Your task to perform on an android device: Open calendar and show me the fourth week of next month Image 0: 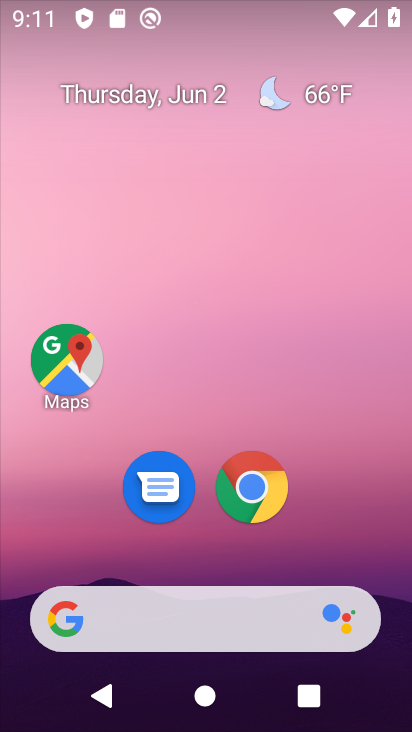
Step 0: drag from (235, 723) to (220, 117)
Your task to perform on an android device: Open calendar and show me the fourth week of next month Image 1: 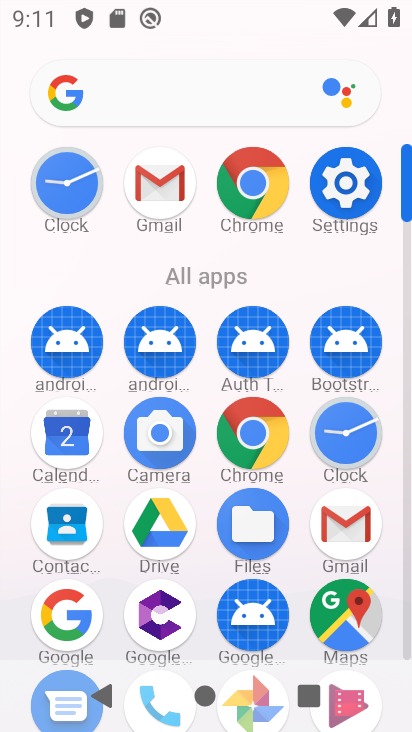
Step 1: click (64, 442)
Your task to perform on an android device: Open calendar and show me the fourth week of next month Image 2: 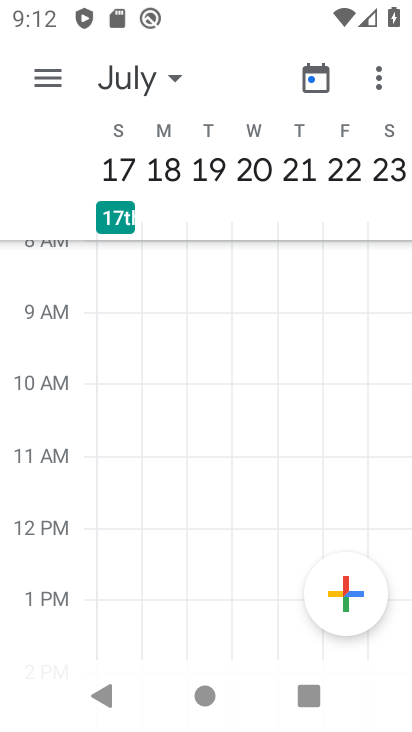
Step 2: click (174, 75)
Your task to perform on an android device: Open calendar and show me the fourth week of next month Image 3: 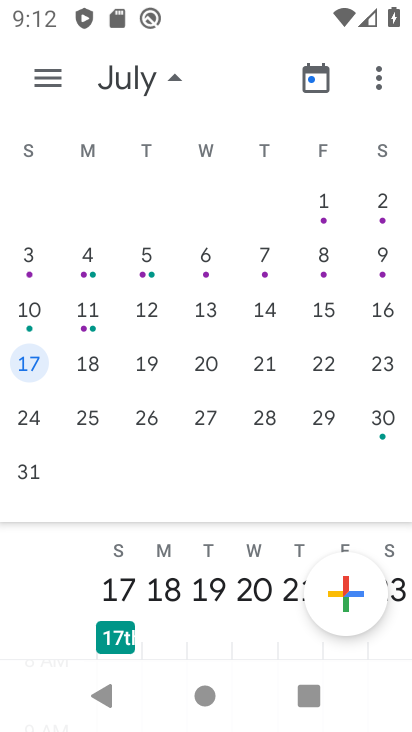
Step 3: click (88, 409)
Your task to perform on an android device: Open calendar and show me the fourth week of next month Image 4: 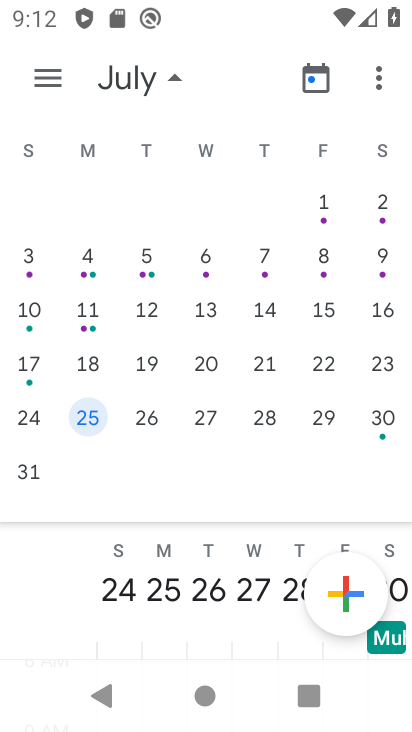
Step 4: click (87, 409)
Your task to perform on an android device: Open calendar and show me the fourth week of next month Image 5: 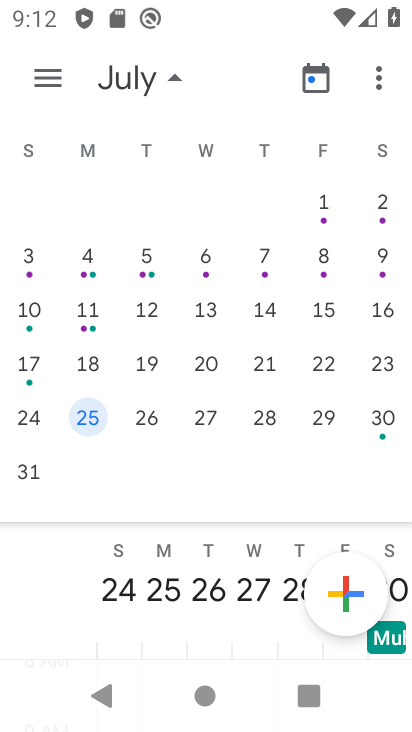
Step 5: click (40, 80)
Your task to perform on an android device: Open calendar and show me the fourth week of next month Image 6: 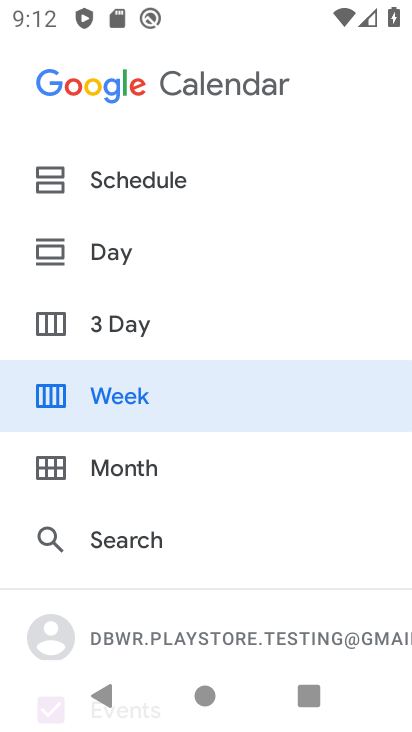
Step 6: click (116, 387)
Your task to perform on an android device: Open calendar and show me the fourth week of next month Image 7: 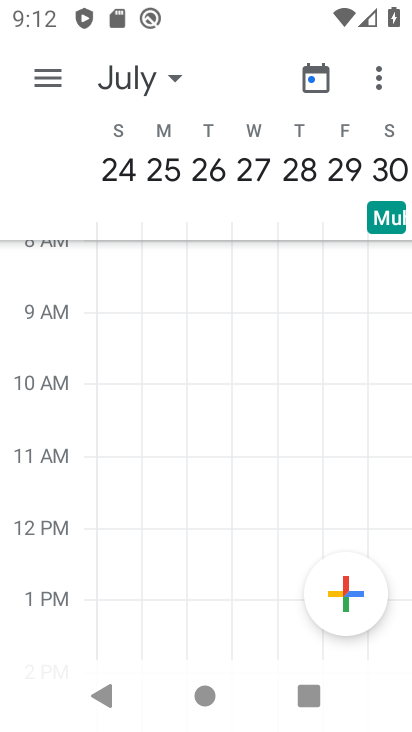
Step 7: task complete